Your task to perform on an android device: change the clock style Image 0: 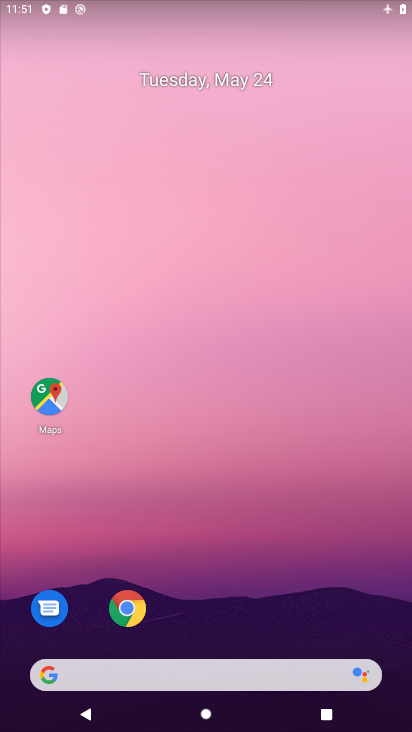
Step 0: drag from (291, 626) to (231, 158)
Your task to perform on an android device: change the clock style Image 1: 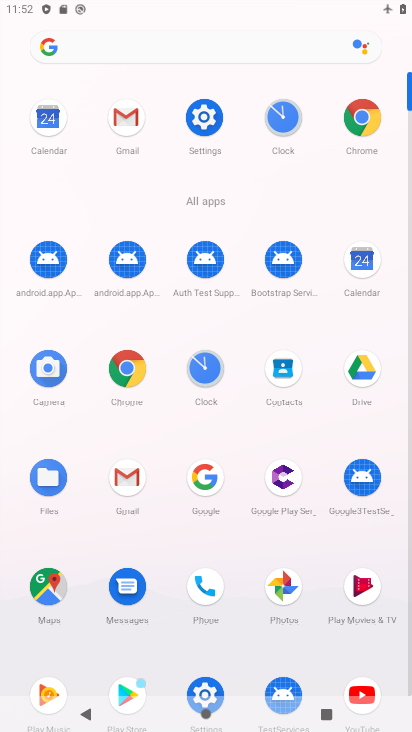
Step 1: click (284, 156)
Your task to perform on an android device: change the clock style Image 2: 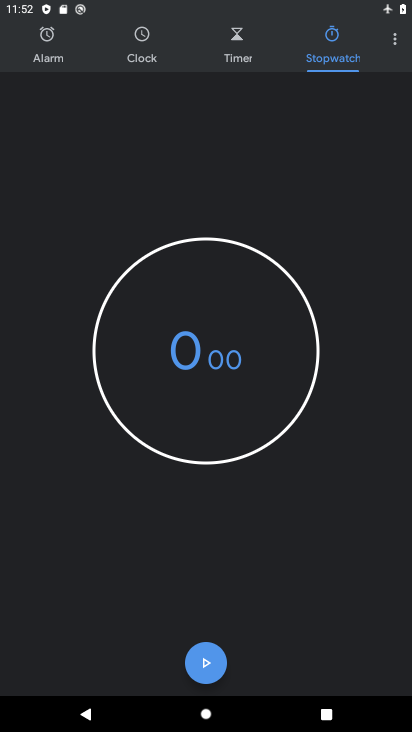
Step 2: click (392, 55)
Your task to perform on an android device: change the clock style Image 3: 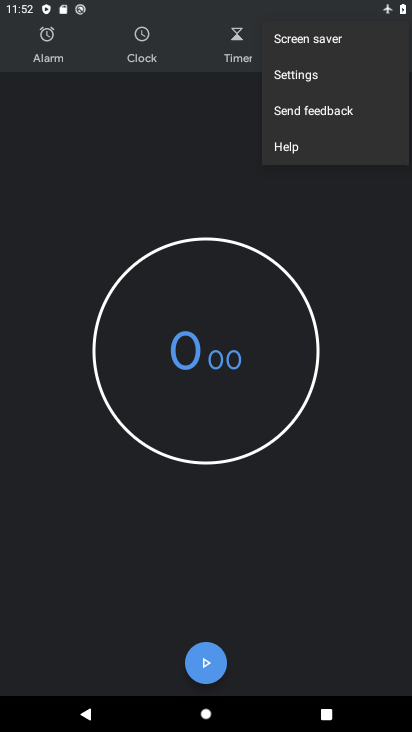
Step 3: click (315, 83)
Your task to perform on an android device: change the clock style Image 4: 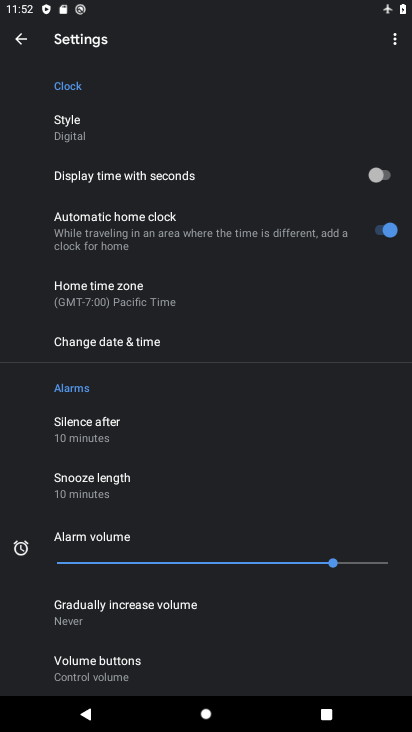
Step 4: click (267, 158)
Your task to perform on an android device: change the clock style Image 5: 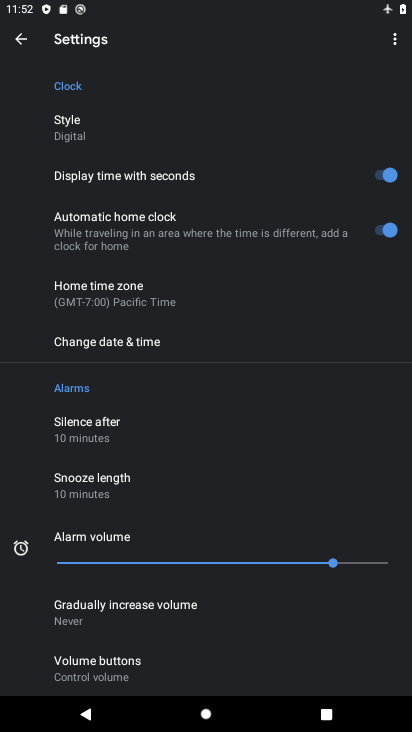
Step 5: click (152, 124)
Your task to perform on an android device: change the clock style Image 6: 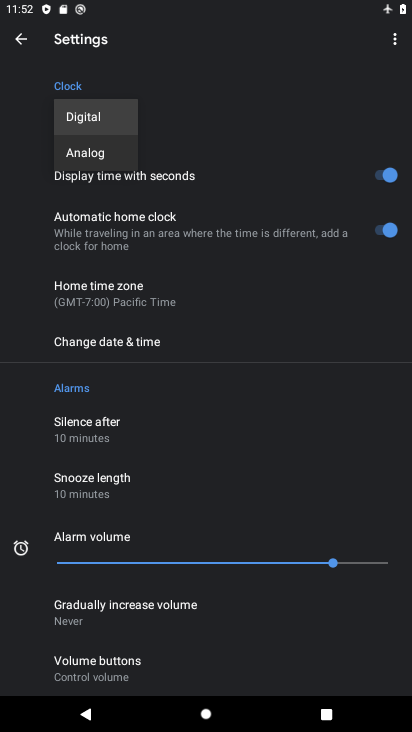
Step 6: click (109, 148)
Your task to perform on an android device: change the clock style Image 7: 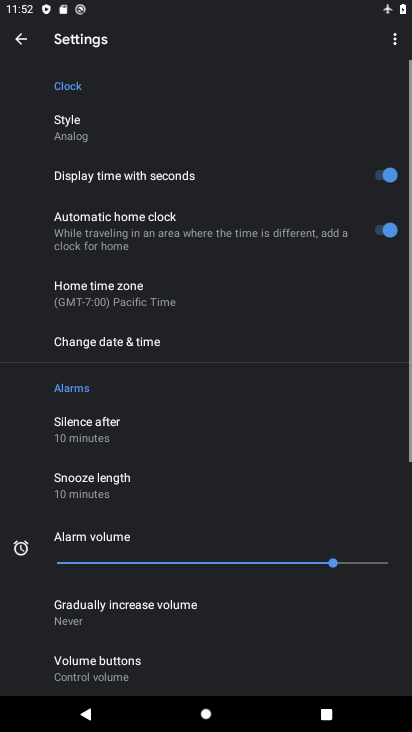
Step 7: task complete